Your task to perform on an android device: open app "Booking.com: Hotels and more" (install if not already installed), go to login, and select forgot password Image 0: 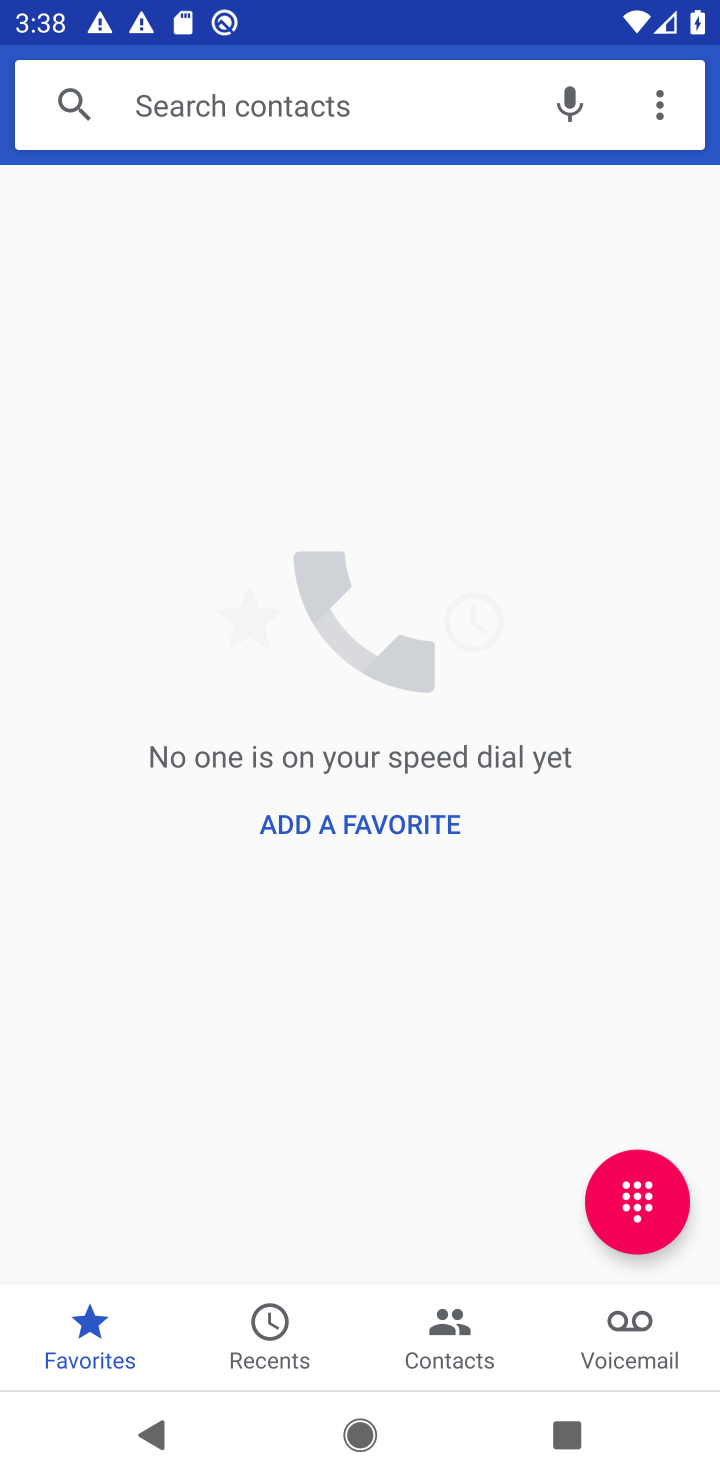
Step 0: press home button
Your task to perform on an android device: open app "Booking.com: Hotels and more" (install if not already installed), go to login, and select forgot password Image 1: 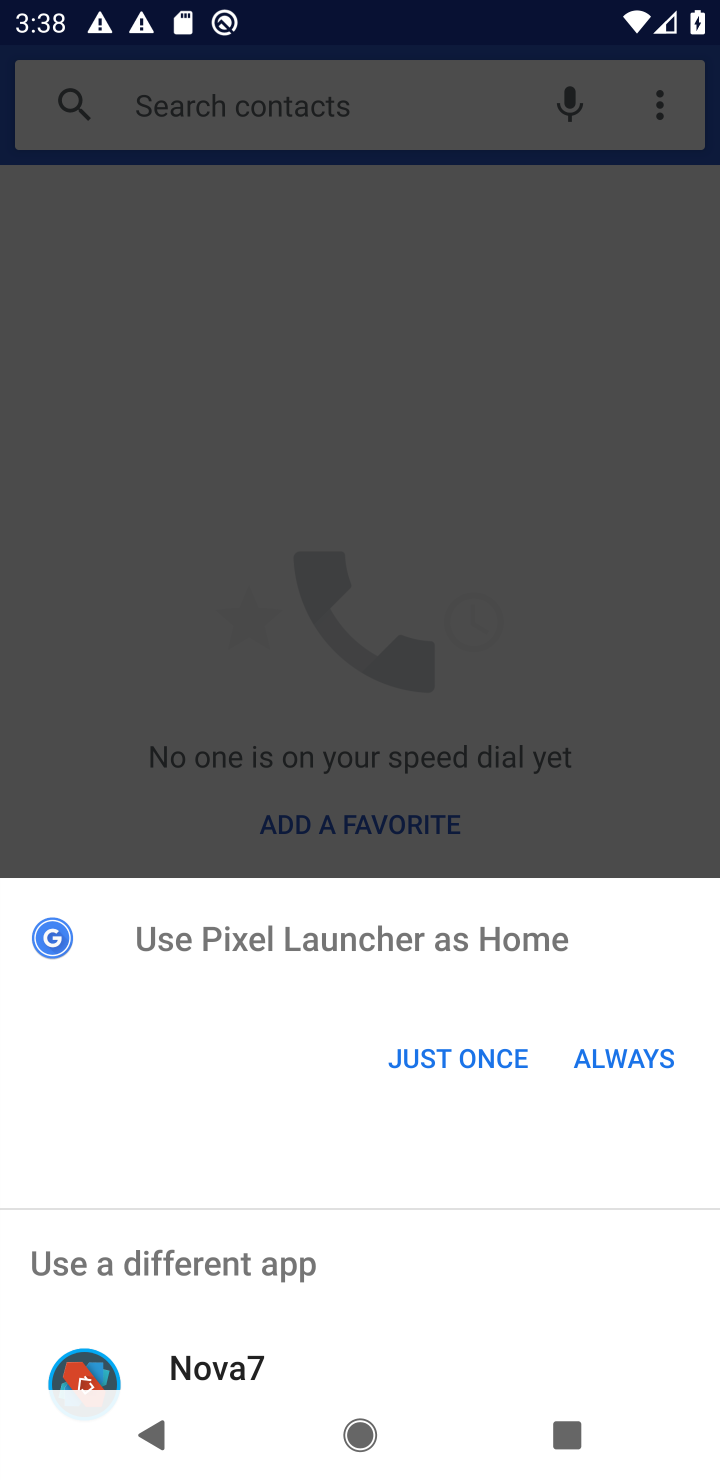
Step 1: click (648, 1052)
Your task to perform on an android device: open app "Booking.com: Hotels and more" (install if not already installed), go to login, and select forgot password Image 2: 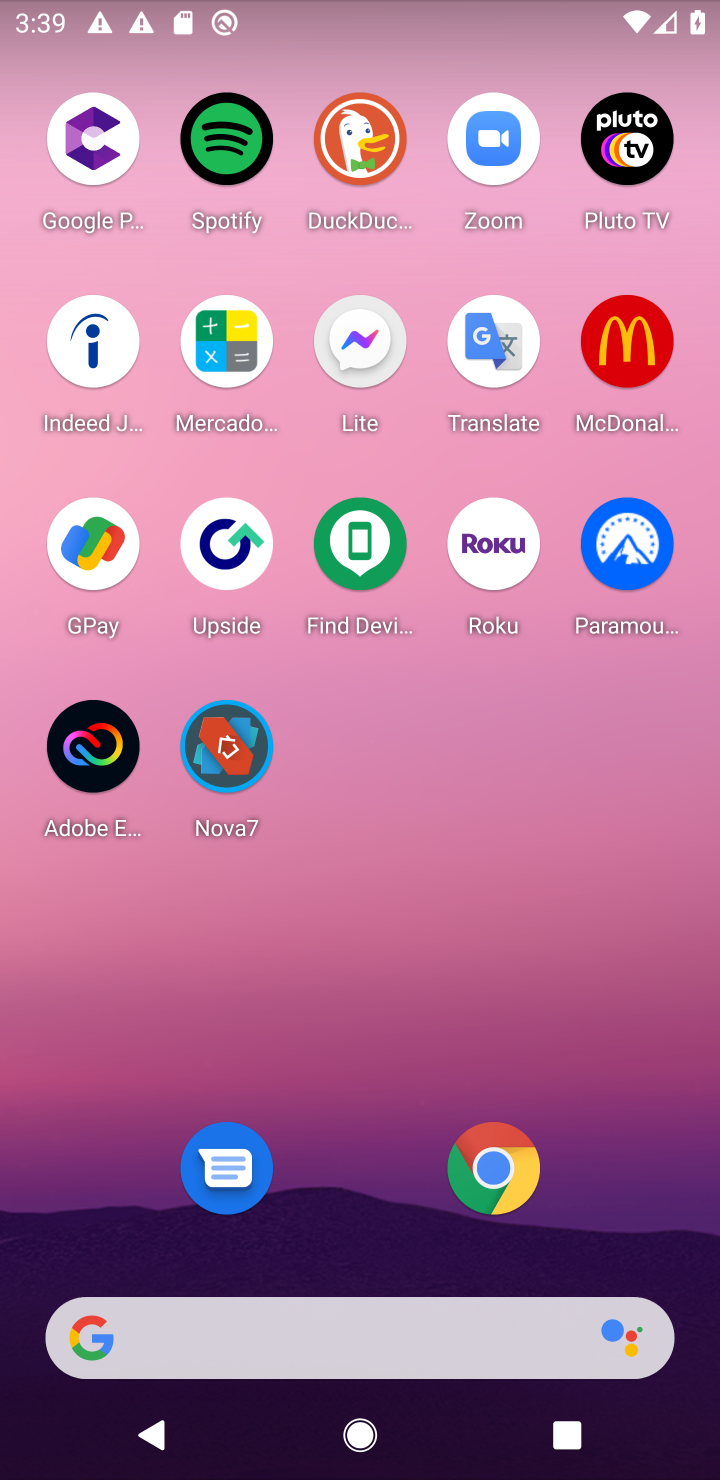
Step 2: drag from (642, 1245) to (517, 235)
Your task to perform on an android device: open app "Booking.com: Hotels and more" (install if not already installed), go to login, and select forgot password Image 3: 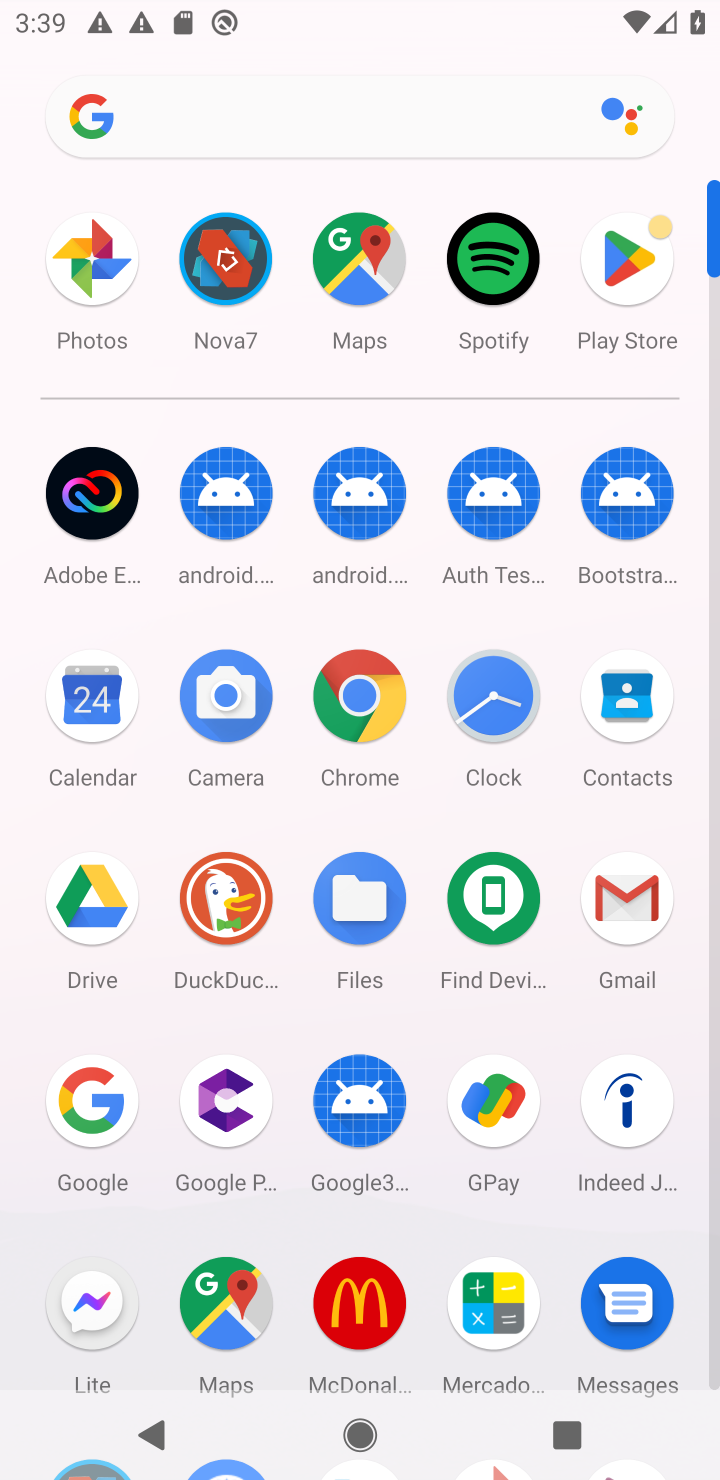
Step 3: drag from (545, 1217) to (556, 1011)
Your task to perform on an android device: open app "Booking.com: Hotels and more" (install if not already installed), go to login, and select forgot password Image 4: 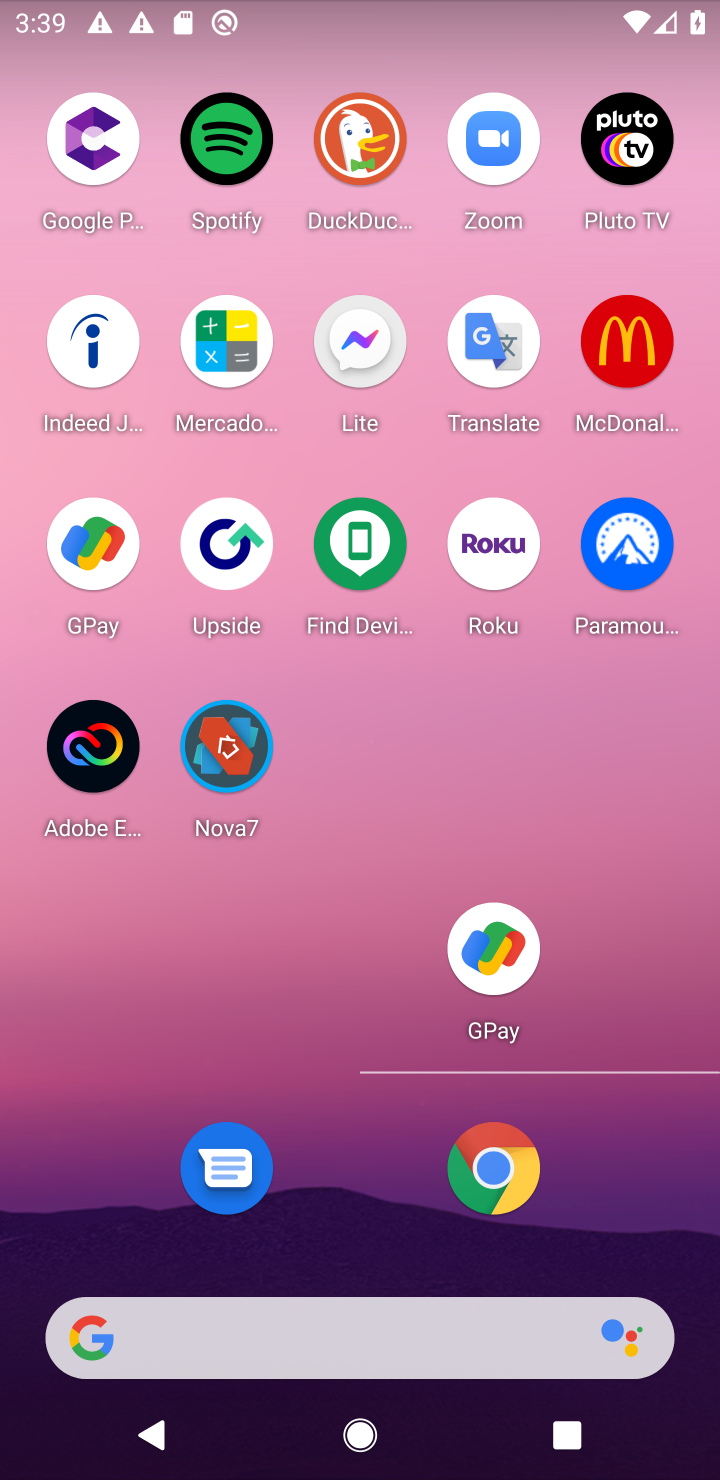
Step 4: drag from (681, 508) to (668, 243)
Your task to perform on an android device: open app "Booking.com: Hotels and more" (install if not already installed), go to login, and select forgot password Image 5: 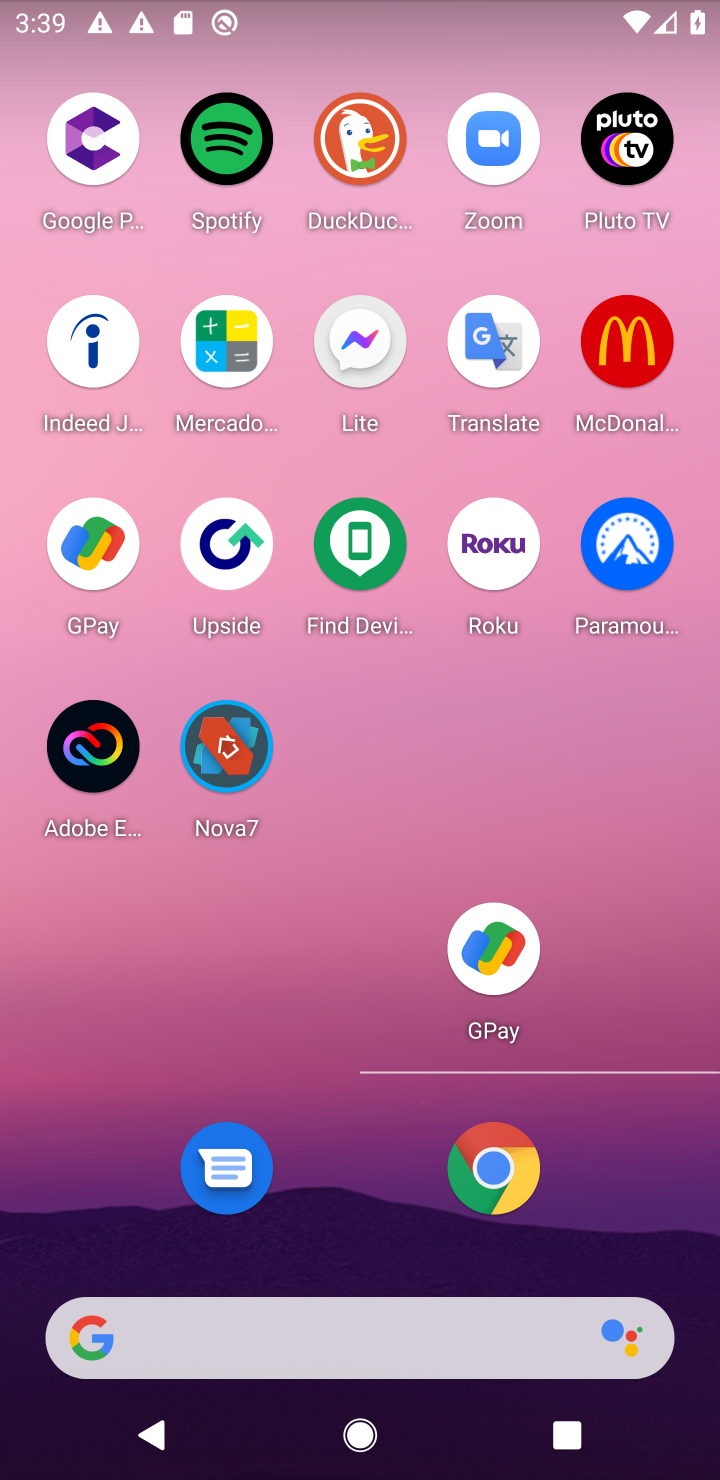
Step 5: drag from (701, 1324) to (610, 111)
Your task to perform on an android device: open app "Booking.com: Hotels and more" (install if not already installed), go to login, and select forgot password Image 6: 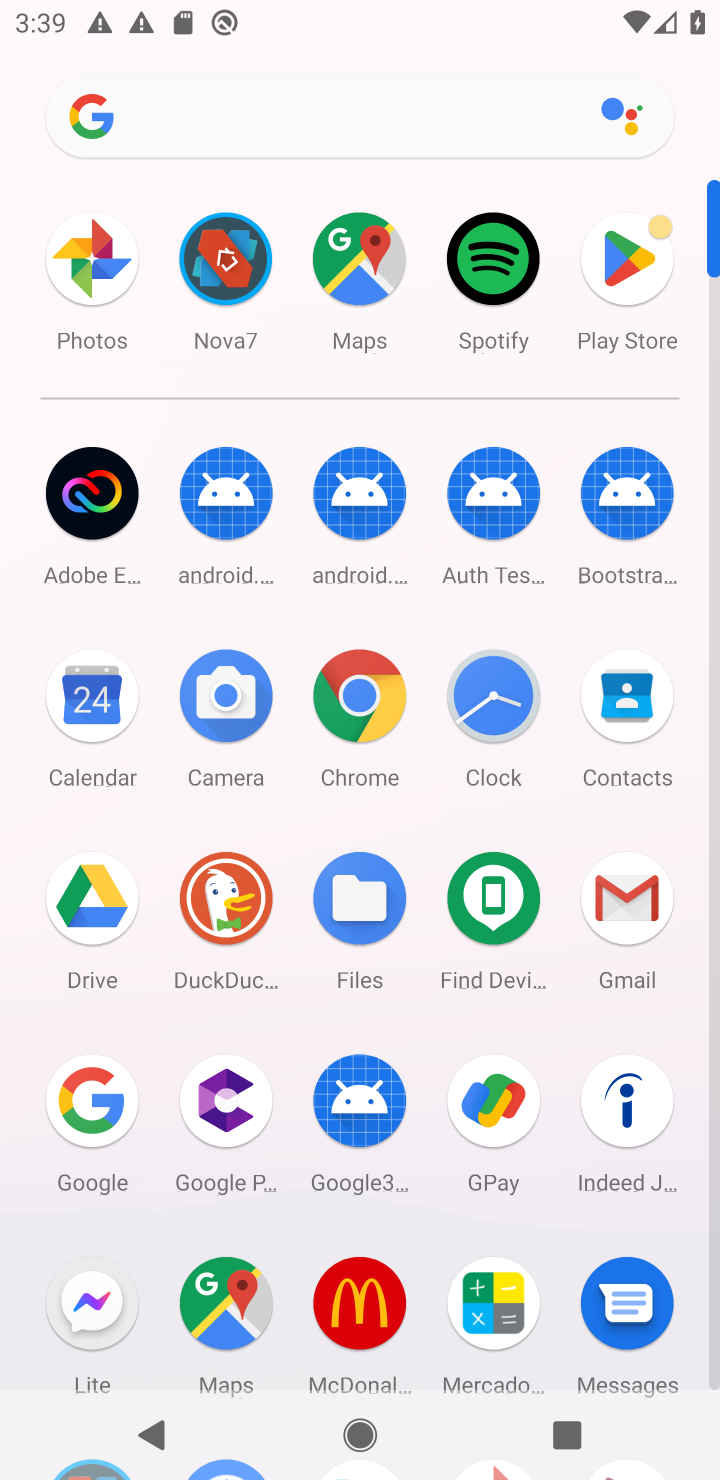
Step 6: drag from (297, 1214) to (283, 510)
Your task to perform on an android device: open app "Booking.com: Hotels and more" (install if not already installed), go to login, and select forgot password Image 7: 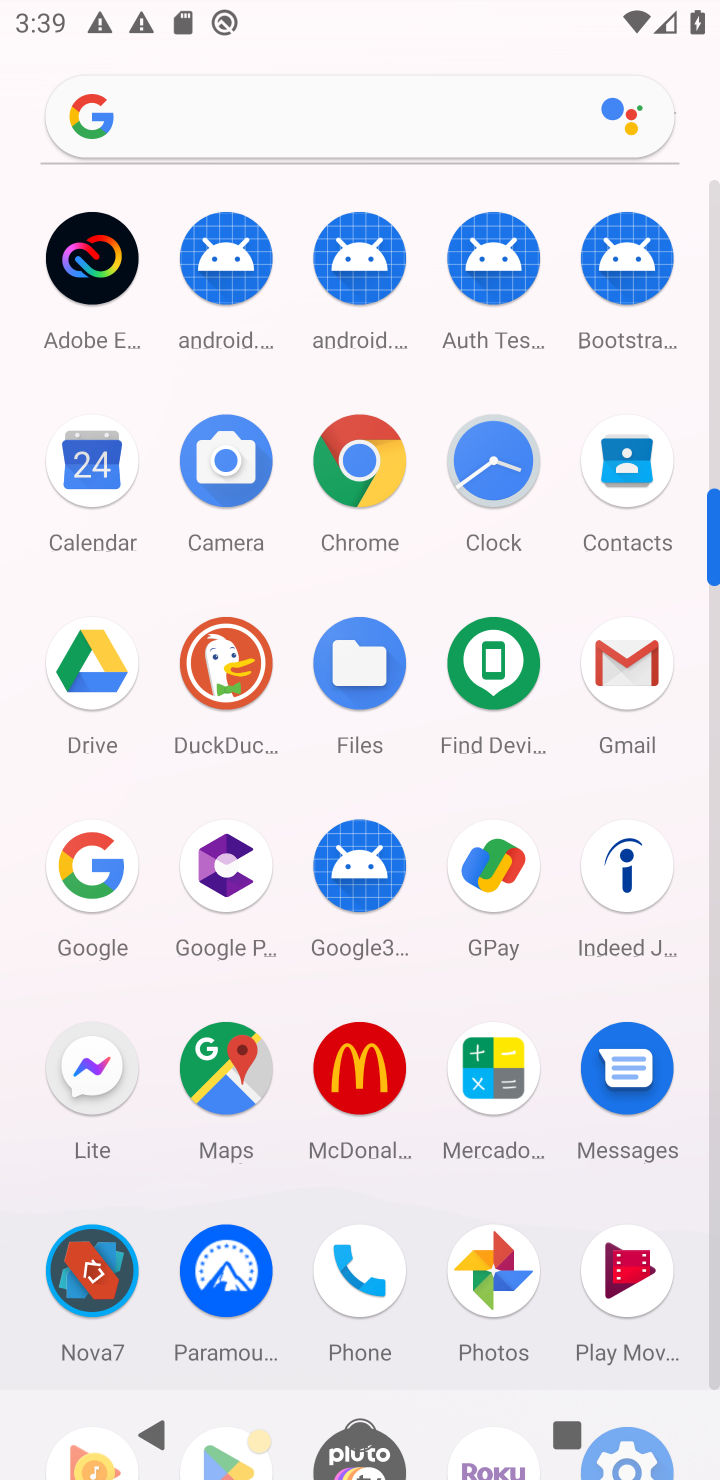
Step 7: drag from (293, 1190) to (304, 580)
Your task to perform on an android device: open app "Booking.com: Hotels and more" (install if not already installed), go to login, and select forgot password Image 8: 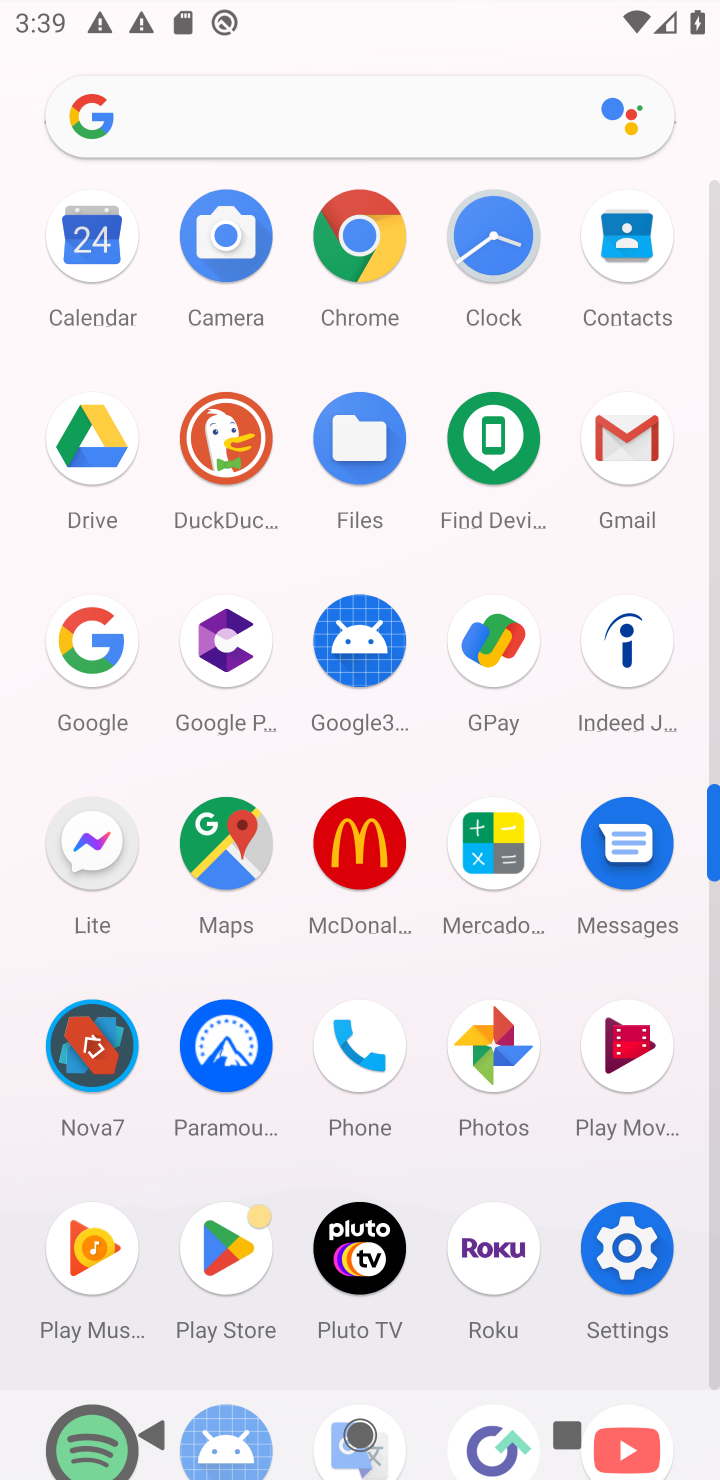
Step 8: click (237, 1241)
Your task to perform on an android device: open app "Booking.com: Hotels and more" (install if not already installed), go to login, and select forgot password Image 9: 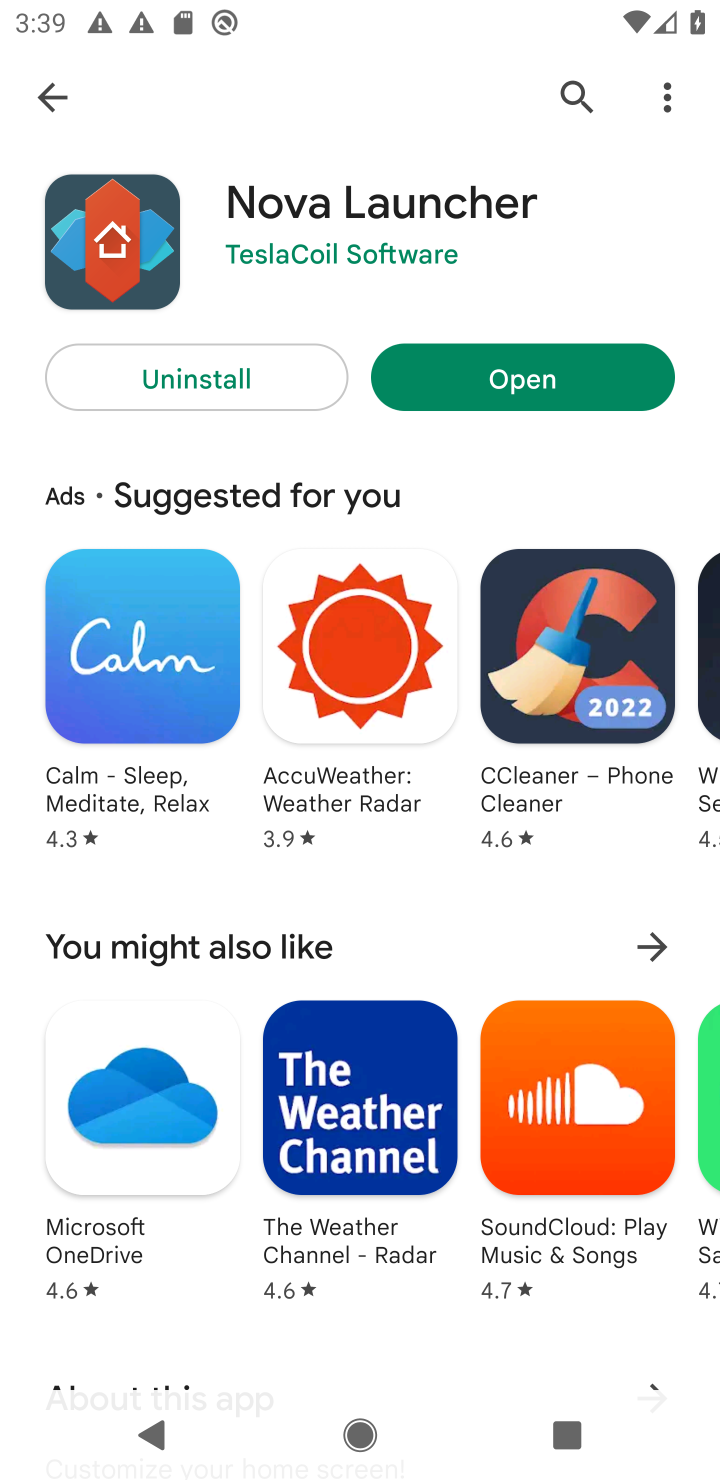
Step 9: click (568, 87)
Your task to perform on an android device: open app "Booking.com: Hotels and more" (install if not already installed), go to login, and select forgot password Image 10: 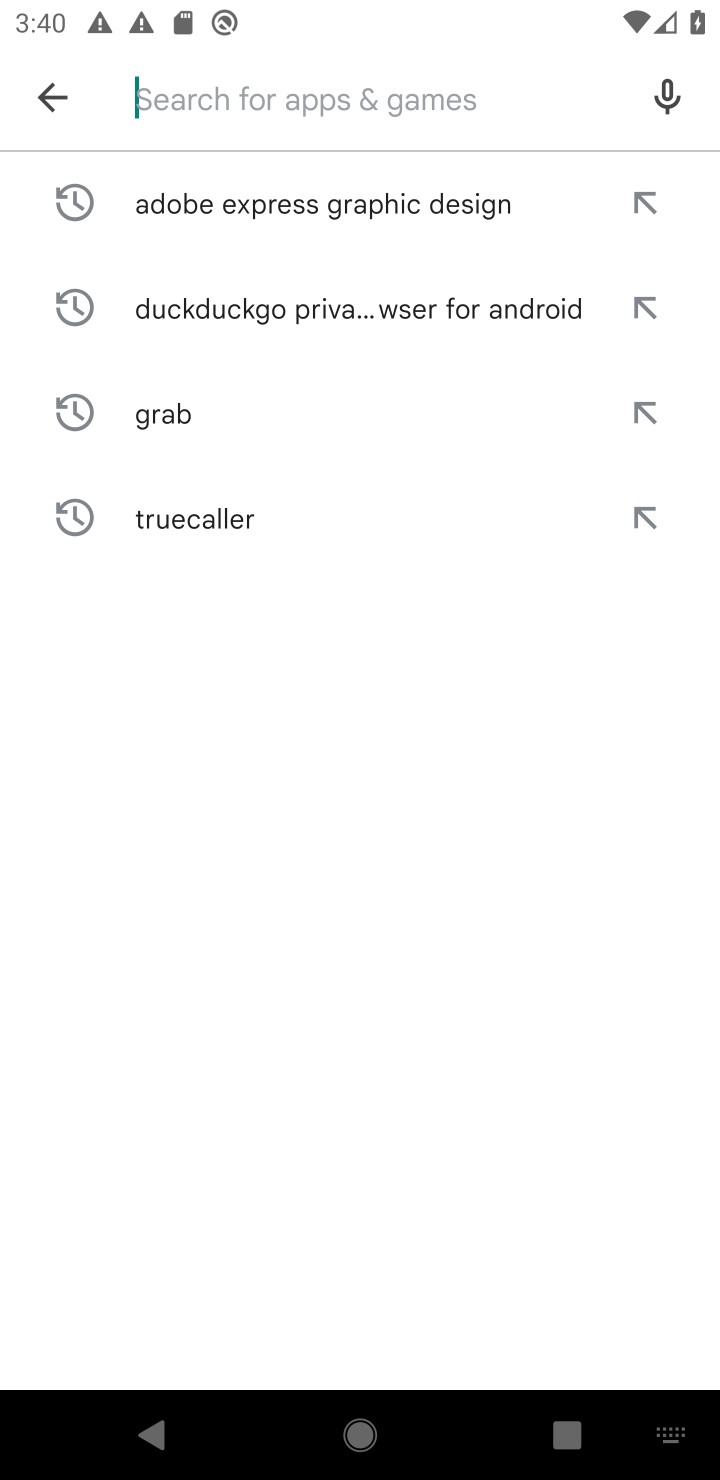
Step 10: type "Booking.com: Hotels and mor"
Your task to perform on an android device: open app "Booking.com: Hotels and more" (install if not already installed), go to login, and select forgot password Image 11: 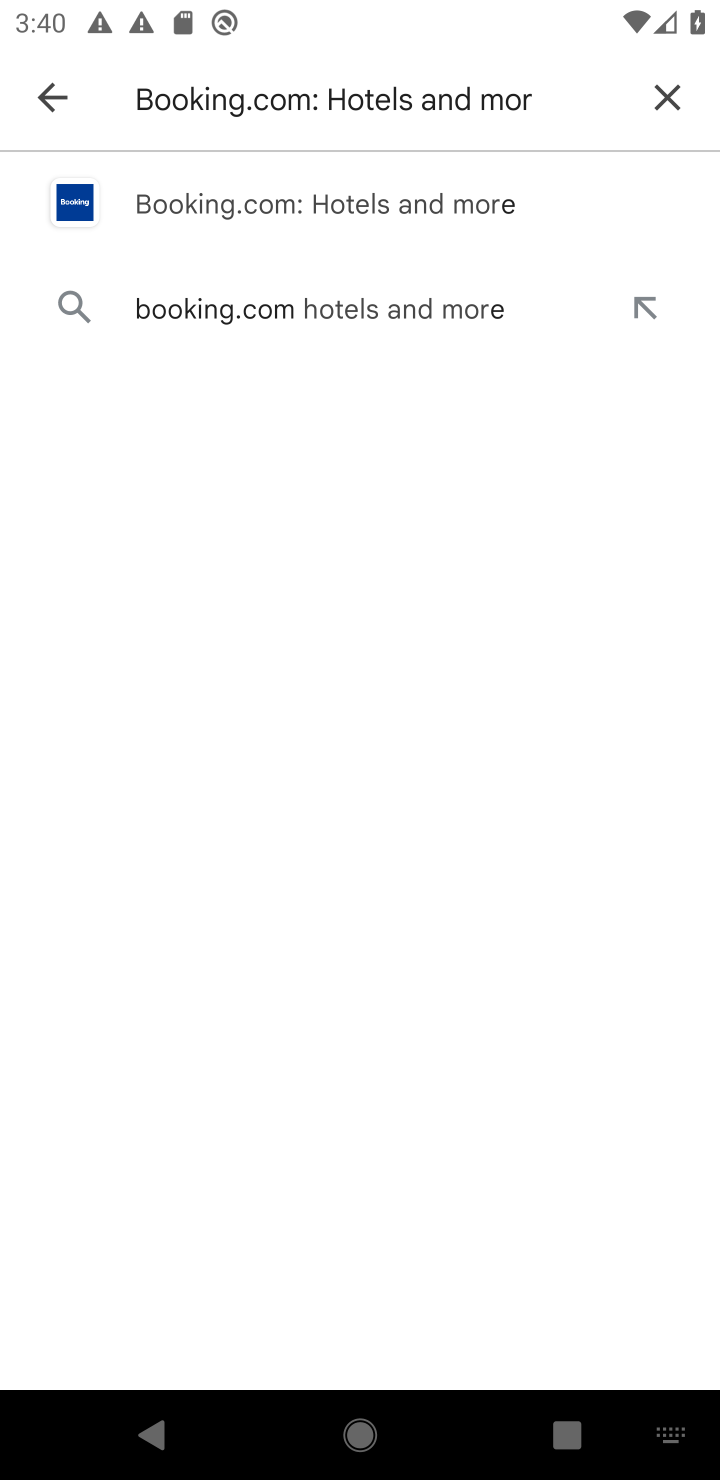
Step 11: click (212, 214)
Your task to perform on an android device: open app "Booking.com: Hotels and more" (install if not already installed), go to login, and select forgot password Image 12: 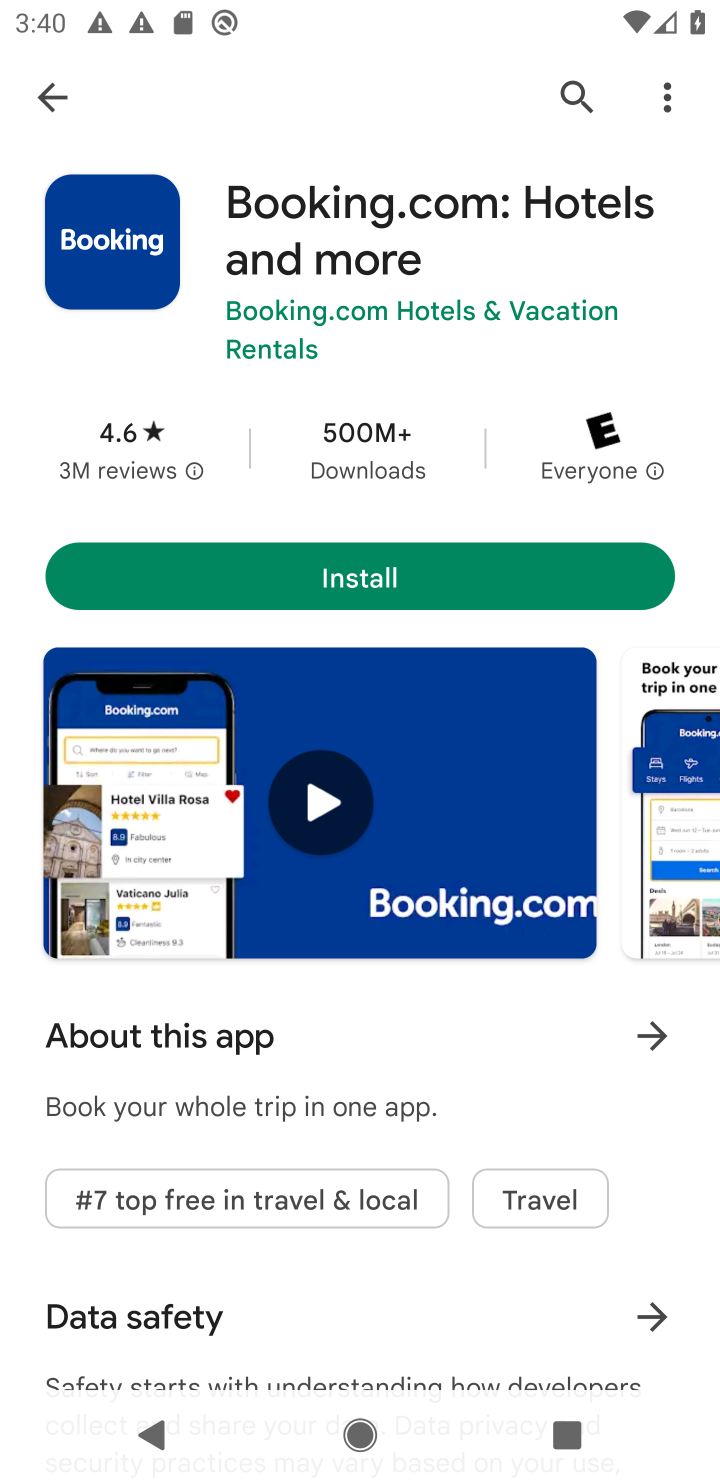
Step 12: click (345, 577)
Your task to perform on an android device: open app "Booking.com: Hotels and more" (install if not already installed), go to login, and select forgot password Image 13: 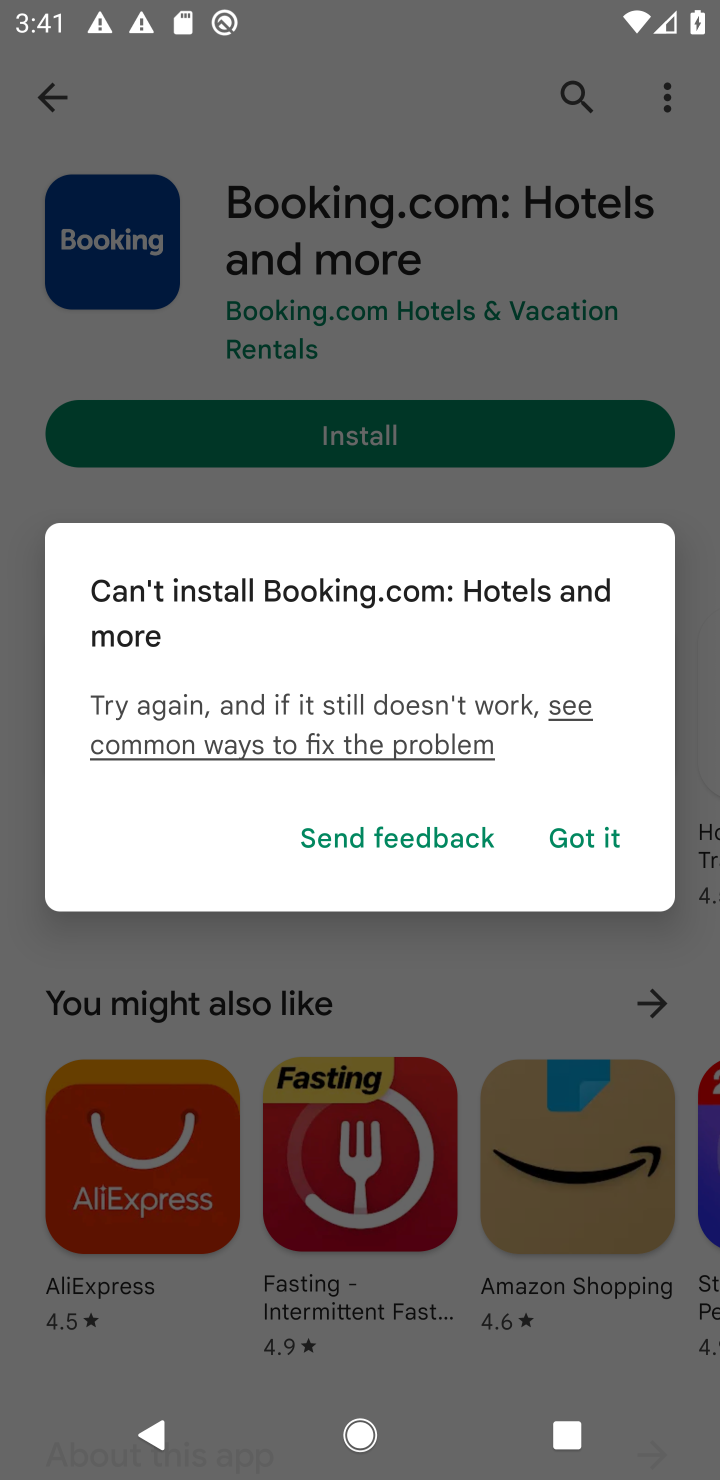
Step 13: click (604, 845)
Your task to perform on an android device: open app "Booking.com: Hotels and more" (install if not already installed), go to login, and select forgot password Image 14: 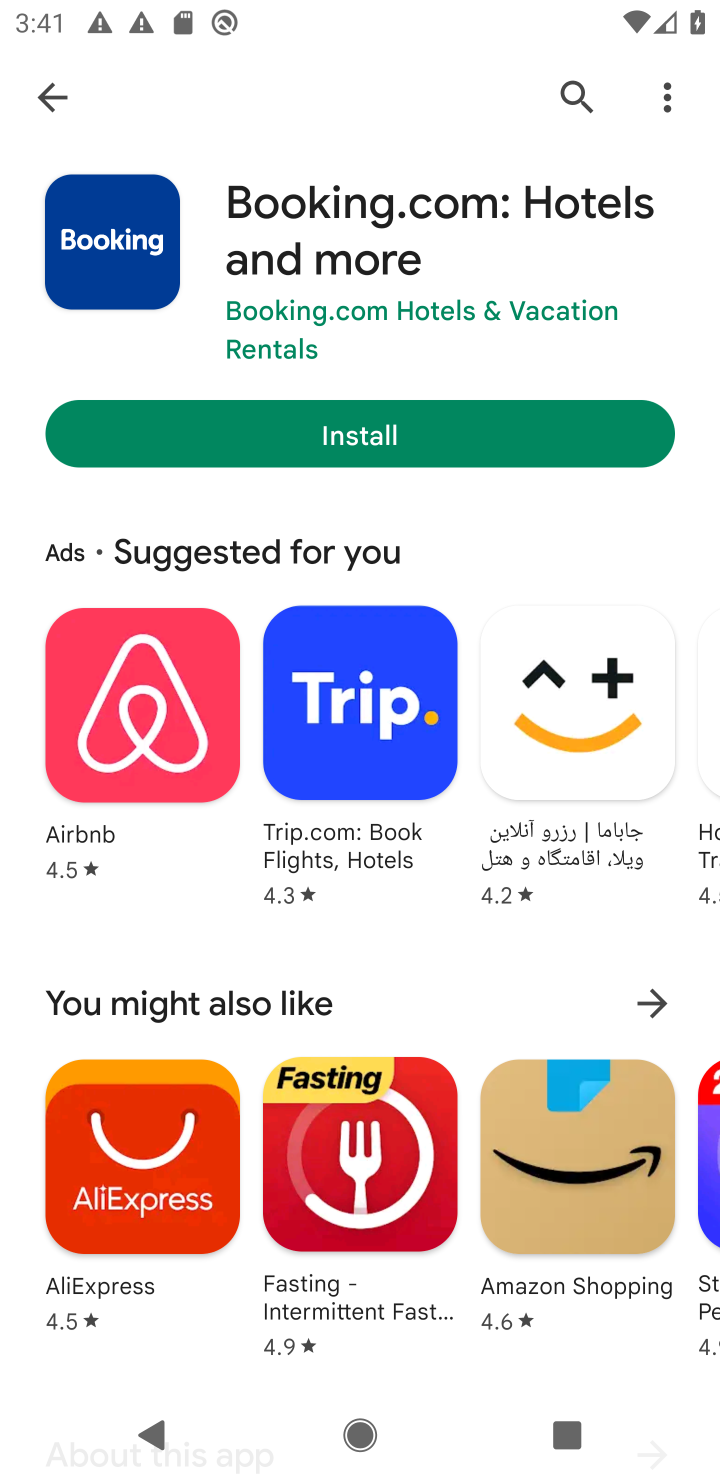
Step 14: task complete